Your task to perform on an android device: turn on data saver in the chrome app Image 0: 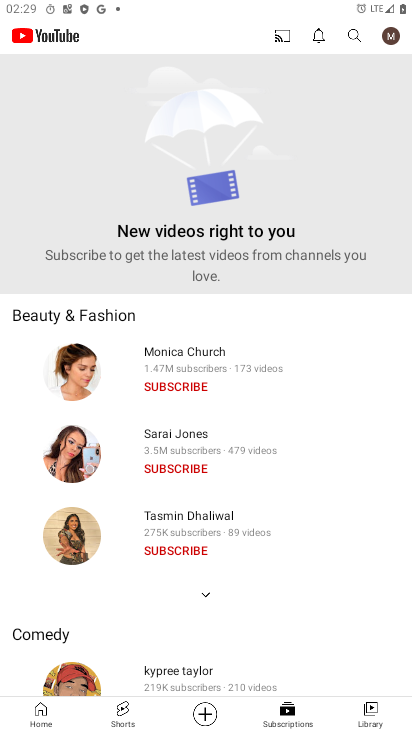
Step 0: press home button
Your task to perform on an android device: turn on data saver in the chrome app Image 1: 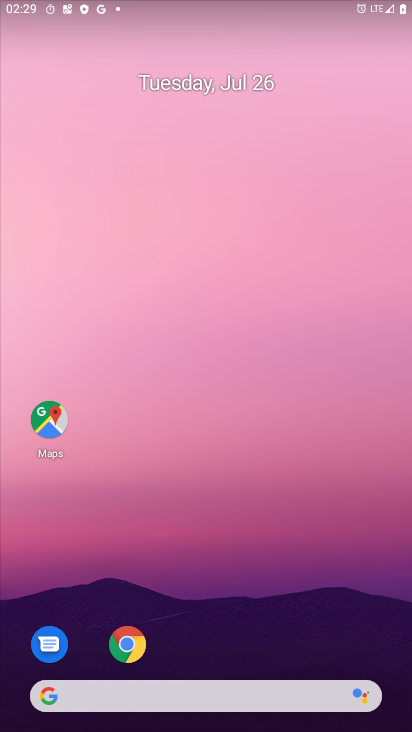
Step 1: click (128, 646)
Your task to perform on an android device: turn on data saver in the chrome app Image 2: 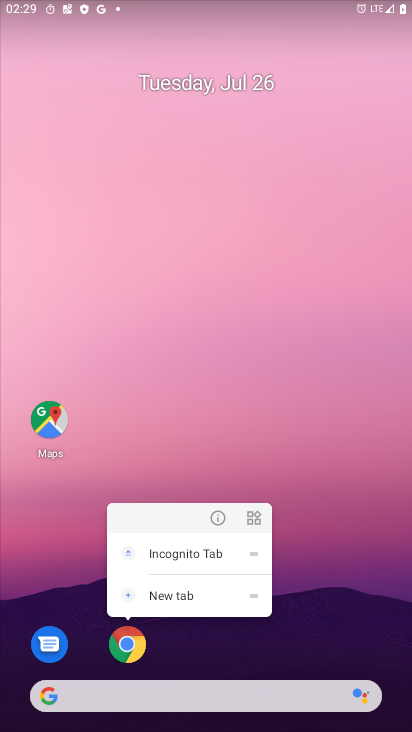
Step 2: click (128, 646)
Your task to perform on an android device: turn on data saver in the chrome app Image 3: 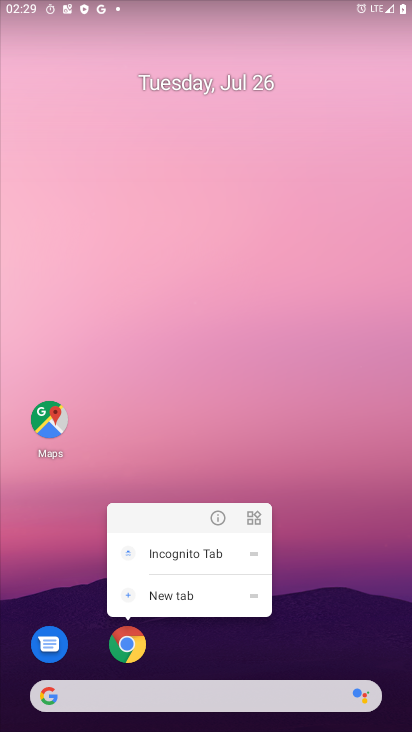
Step 3: click (128, 646)
Your task to perform on an android device: turn on data saver in the chrome app Image 4: 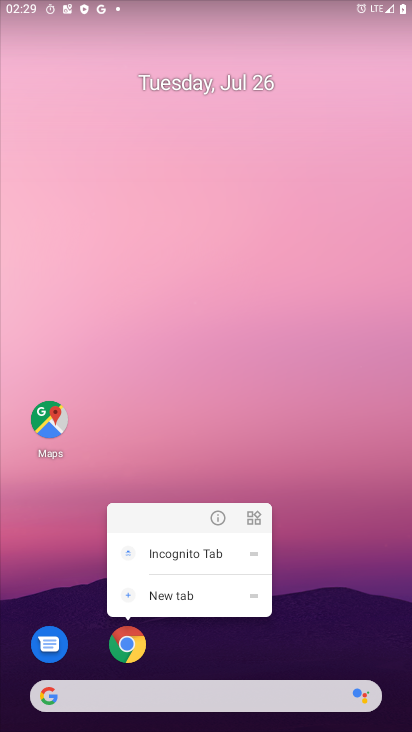
Step 4: click (128, 646)
Your task to perform on an android device: turn on data saver in the chrome app Image 5: 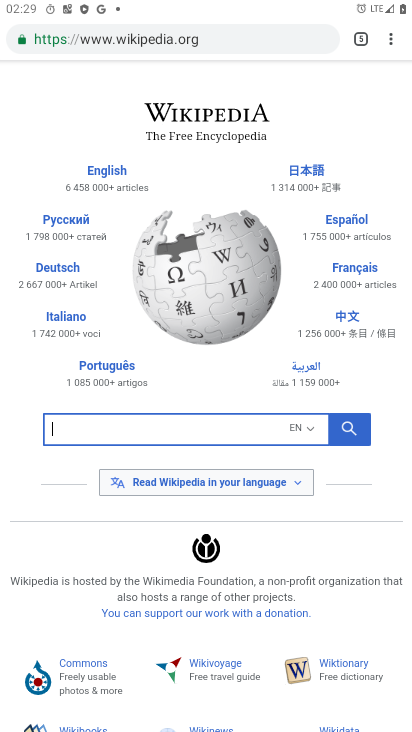
Step 5: drag from (392, 38) to (262, 469)
Your task to perform on an android device: turn on data saver in the chrome app Image 6: 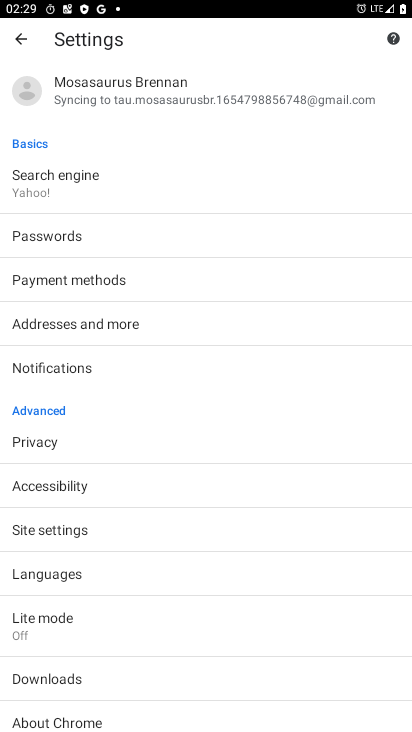
Step 6: click (50, 626)
Your task to perform on an android device: turn on data saver in the chrome app Image 7: 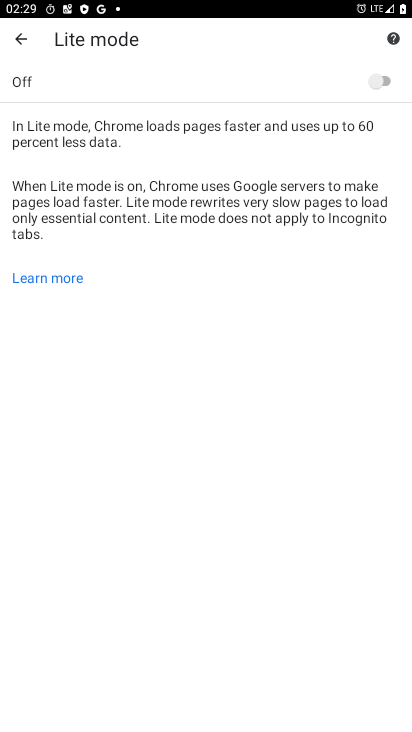
Step 7: click (372, 81)
Your task to perform on an android device: turn on data saver in the chrome app Image 8: 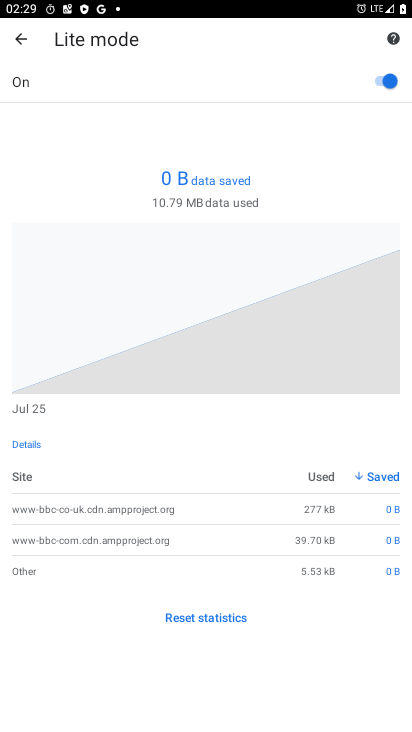
Step 8: task complete